Your task to perform on an android device: Set the phone to "Do not disturb". Image 0: 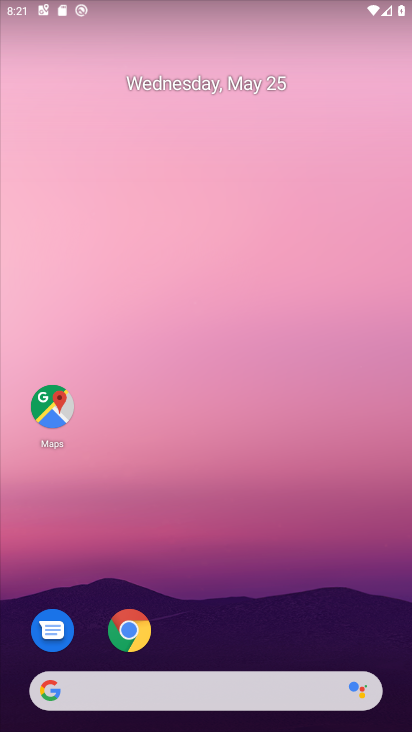
Step 0: drag from (242, 588) to (281, 119)
Your task to perform on an android device: Set the phone to "Do not disturb". Image 1: 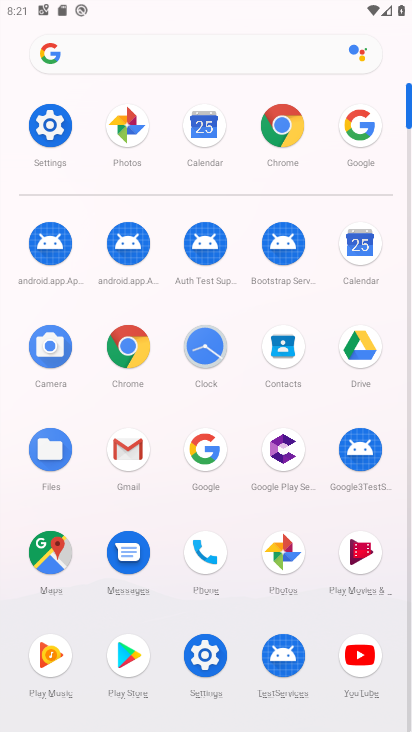
Step 1: click (44, 113)
Your task to perform on an android device: Set the phone to "Do not disturb". Image 2: 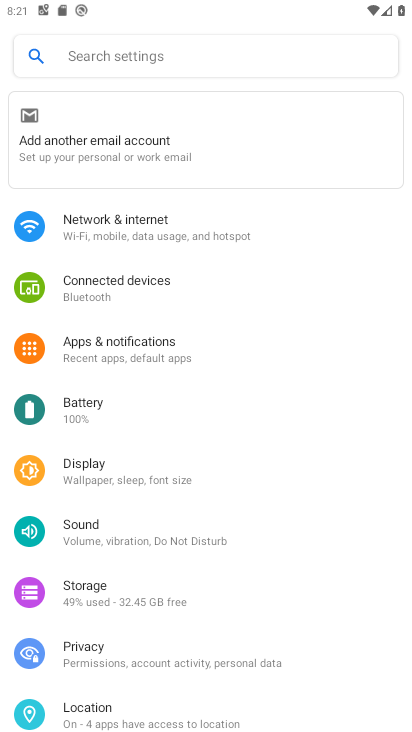
Step 2: click (143, 536)
Your task to perform on an android device: Set the phone to "Do not disturb". Image 3: 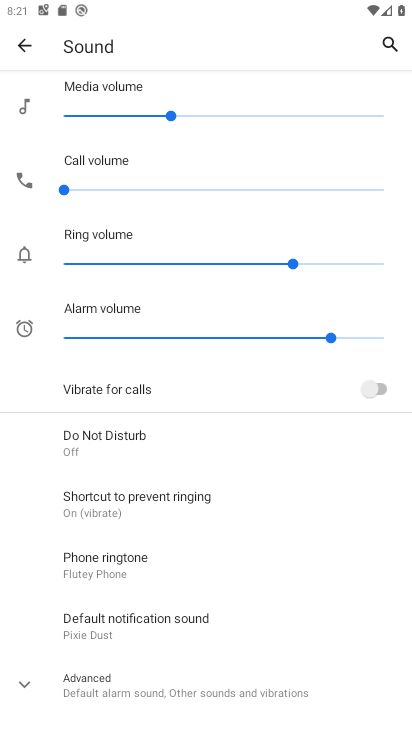
Step 3: click (146, 444)
Your task to perform on an android device: Set the phone to "Do not disturb". Image 4: 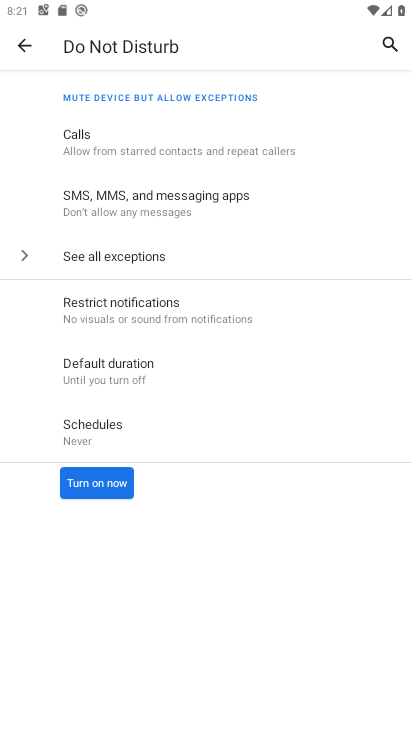
Step 4: click (112, 481)
Your task to perform on an android device: Set the phone to "Do not disturb". Image 5: 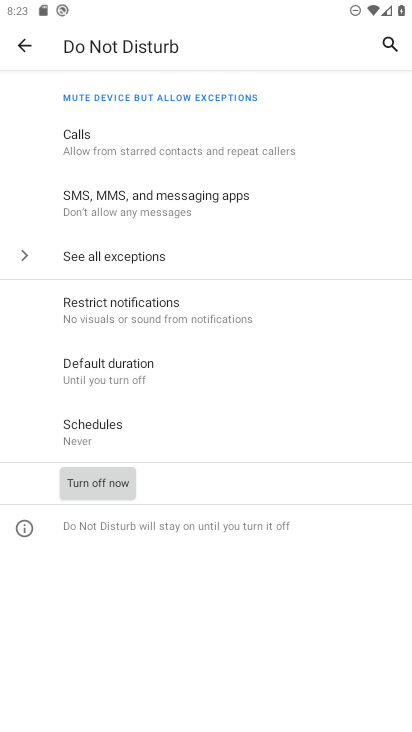
Step 5: task complete